Your task to perform on an android device: Open Yahoo.com Image 0: 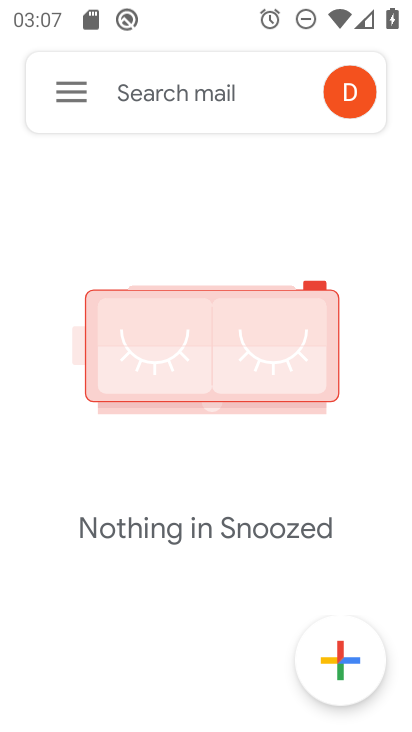
Step 0: press home button
Your task to perform on an android device: Open Yahoo.com Image 1: 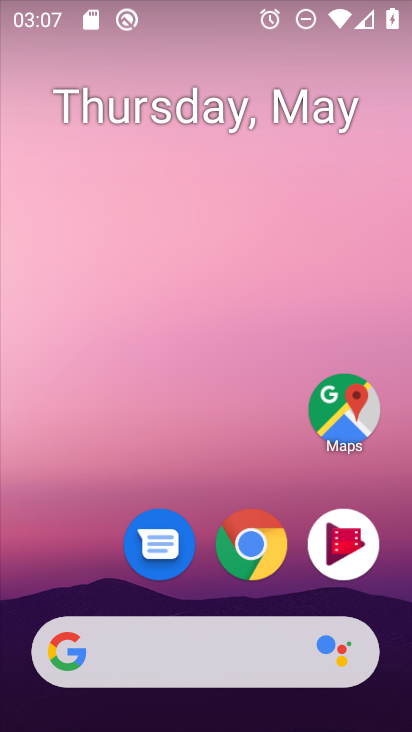
Step 1: drag from (40, 582) to (57, 209)
Your task to perform on an android device: Open Yahoo.com Image 2: 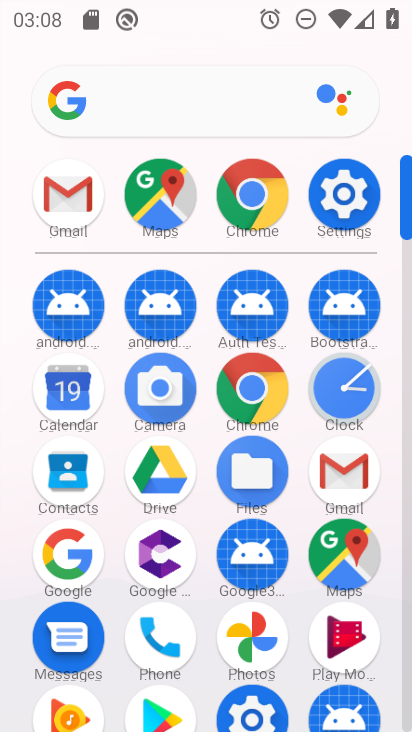
Step 2: click (262, 414)
Your task to perform on an android device: Open Yahoo.com Image 3: 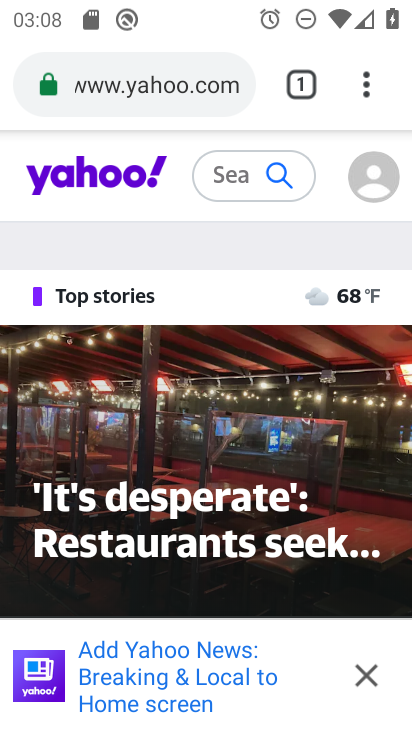
Step 3: task complete